Your task to perform on an android device: delete the emails in spam in the gmail app Image 0: 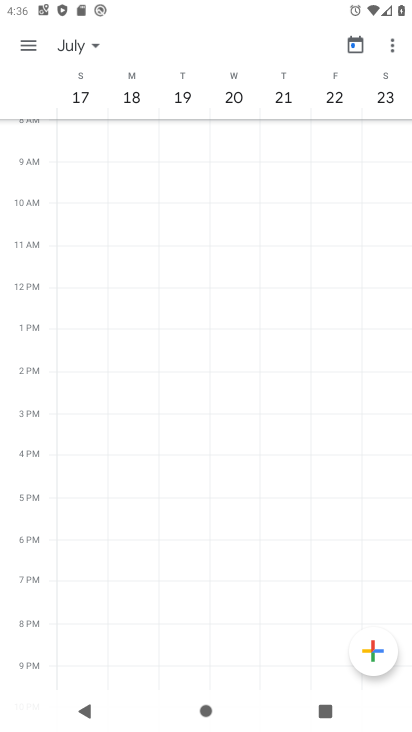
Step 0: press home button
Your task to perform on an android device: delete the emails in spam in the gmail app Image 1: 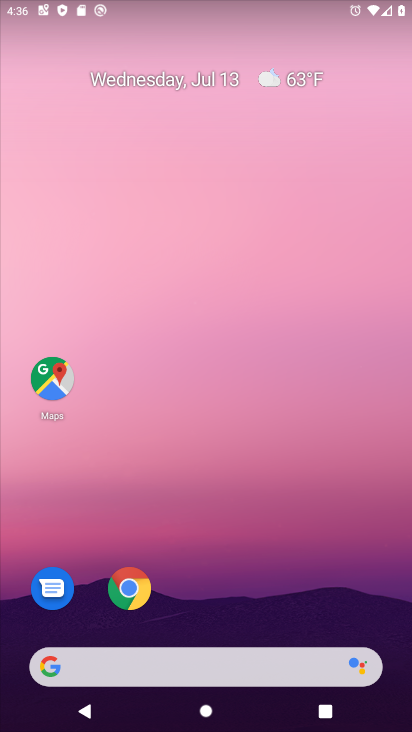
Step 1: drag from (168, 661) to (235, 157)
Your task to perform on an android device: delete the emails in spam in the gmail app Image 2: 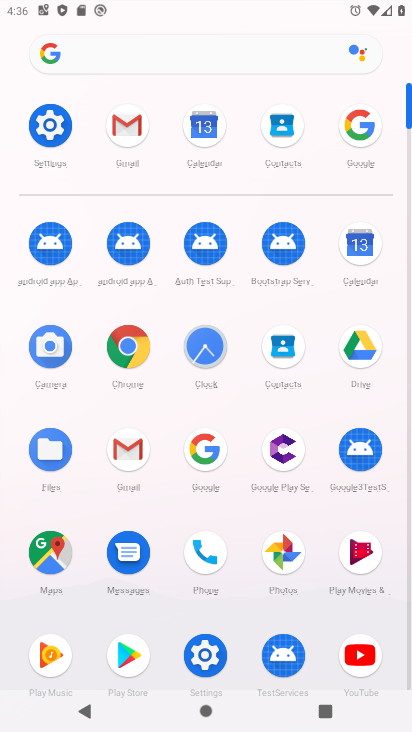
Step 2: click (129, 446)
Your task to perform on an android device: delete the emails in spam in the gmail app Image 3: 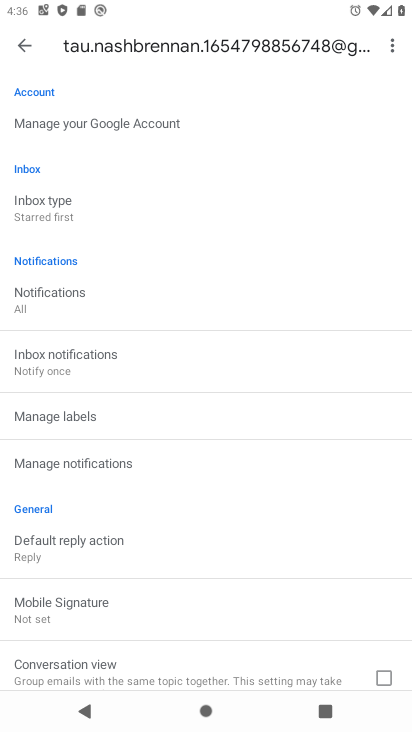
Step 3: press back button
Your task to perform on an android device: delete the emails in spam in the gmail app Image 4: 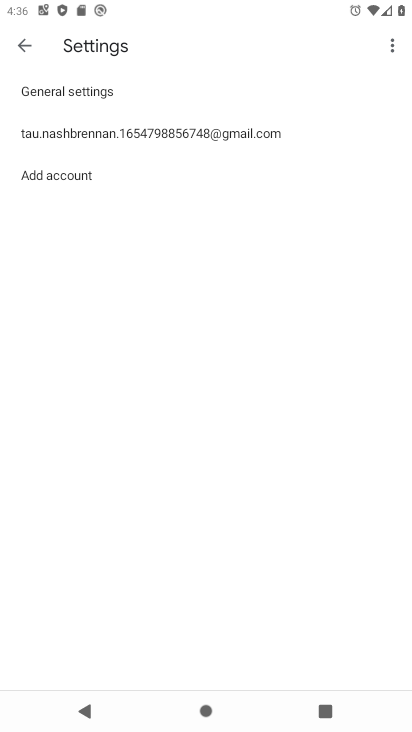
Step 4: press back button
Your task to perform on an android device: delete the emails in spam in the gmail app Image 5: 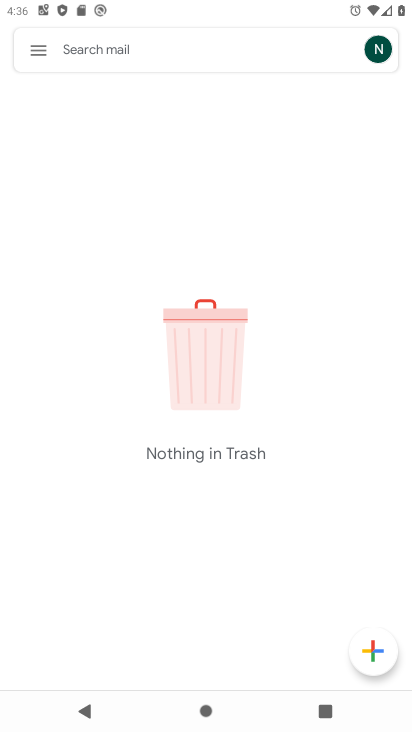
Step 5: click (44, 50)
Your task to perform on an android device: delete the emails in spam in the gmail app Image 6: 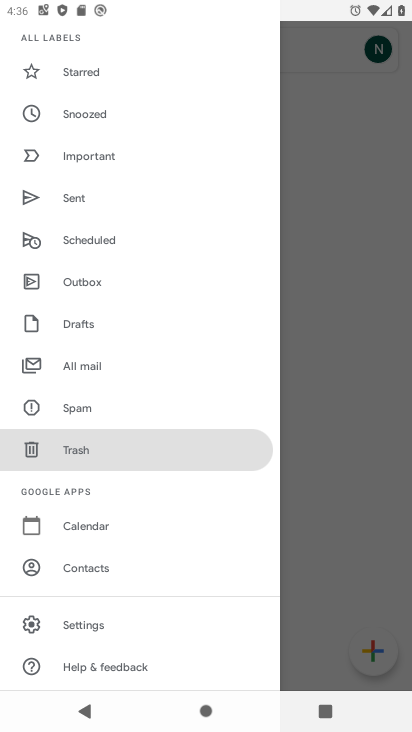
Step 6: click (83, 398)
Your task to perform on an android device: delete the emails in spam in the gmail app Image 7: 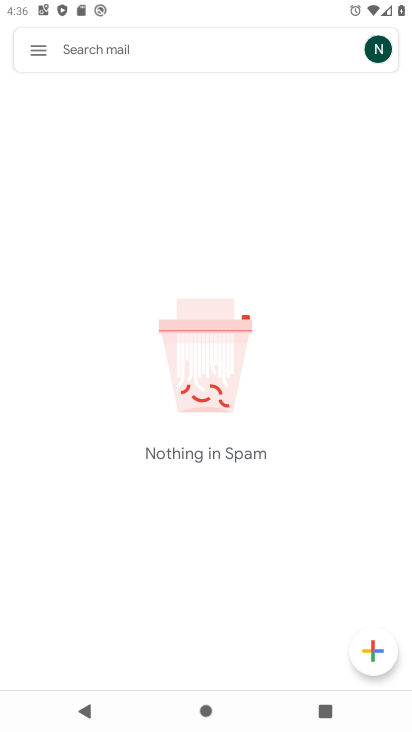
Step 7: task complete